Your task to perform on an android device: Search for Italian restaurants on Maps Image 0: 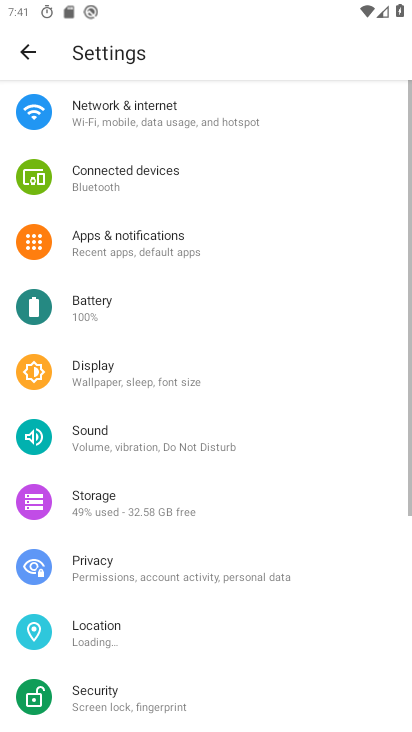
Step 0: press home button
Your task to perform on an android device: Search for Italian restaurants on Maps Image 1: 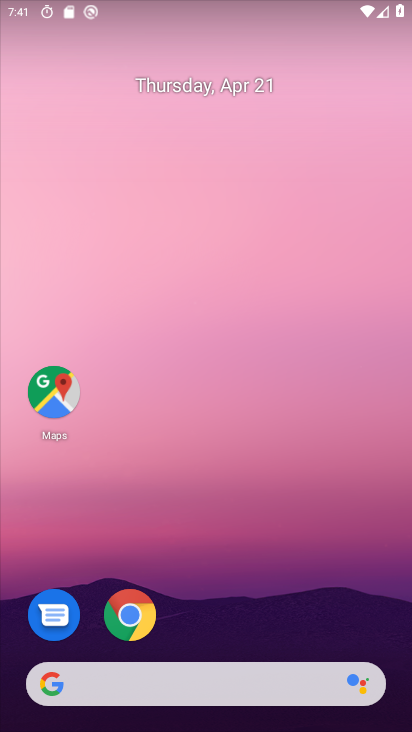
Step 1: drag from (223, 674) to (364, 72)
Your task to perform on an android device: Search for Italian restaurants on Maps Image 2: 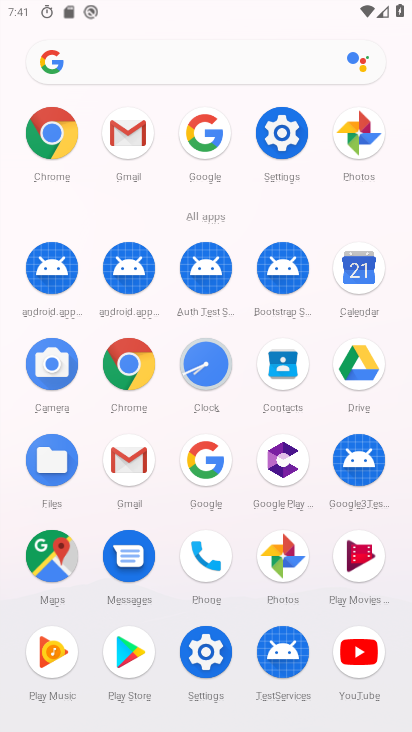
Step 2: click (44, 559)
Your task to perform on an android device: Search for Italian restaurants on Maps Image 3: 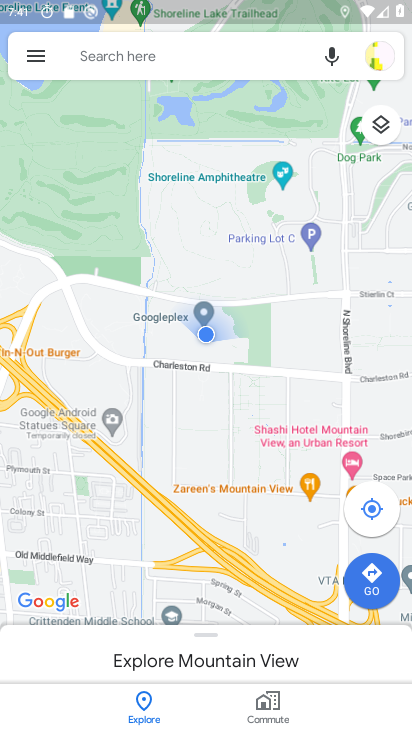
Step 3: click (161, 56)
Your task to perform on an android device: Search for Italian restaurants on Maps Image 4: 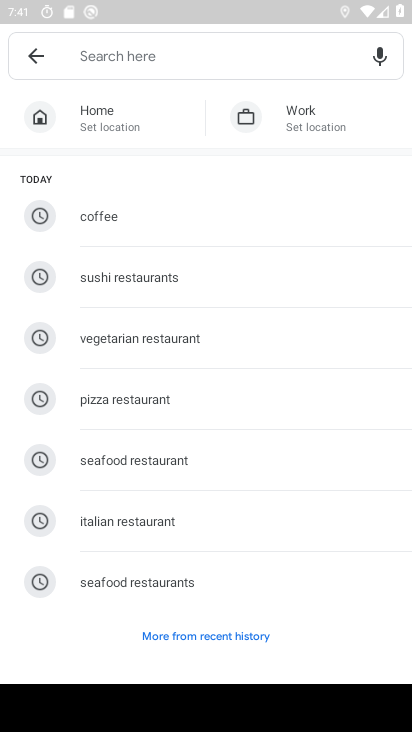
Step 4: click (130, 528)
Your task to perform on an android device: Search for Italian restaurants on Maps Image 5: 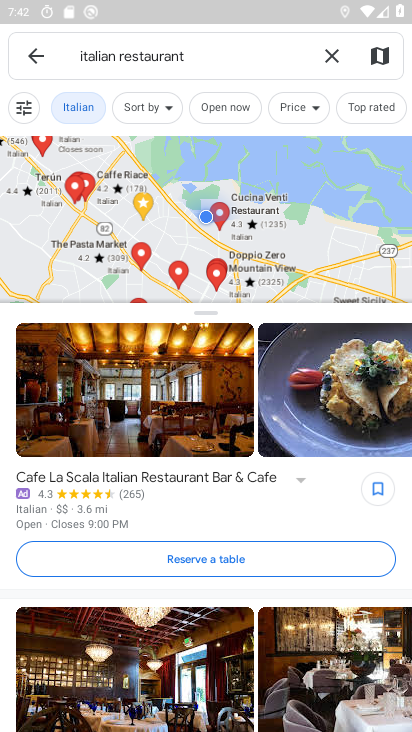
Step 5: task complete